Your task to perform on an android device: Show me recent news Image 0: 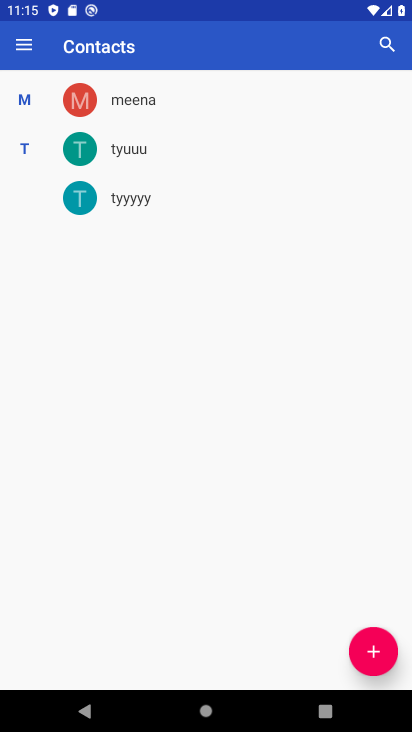
Step 0: press home button
Your task to perform on an android device: Show me recent news Image 1: 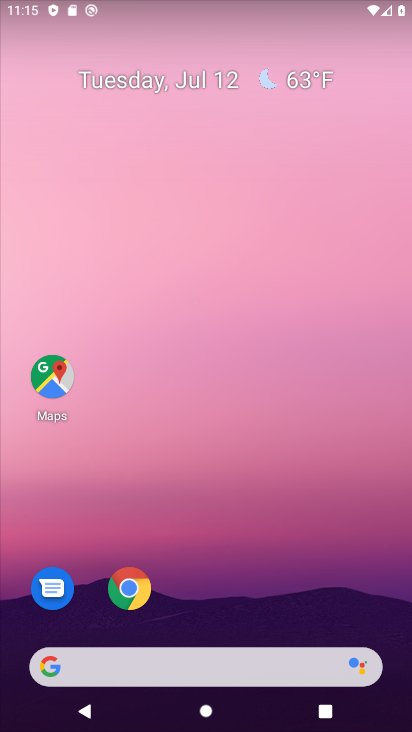
Step 1: click (93, 662)
Your task to perform on an android device: Show me recent news Image 2: 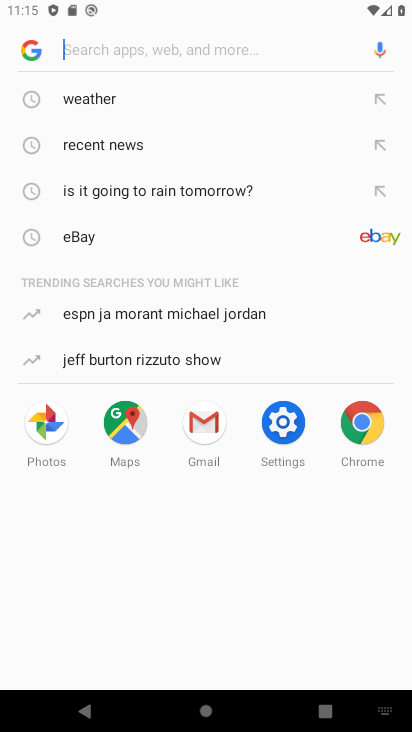
Step 2: type "Show me recent news"
Your task to perform on an android device: Show me recent news Image 3: 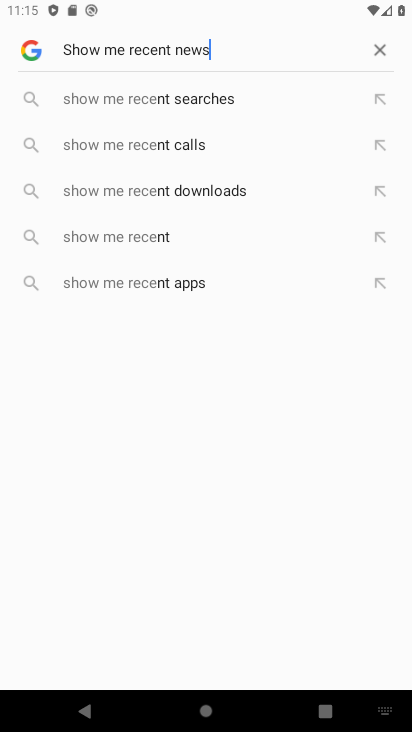
Step 3: type ""
Your task to perform on an android device: Show me recent news Image 4: 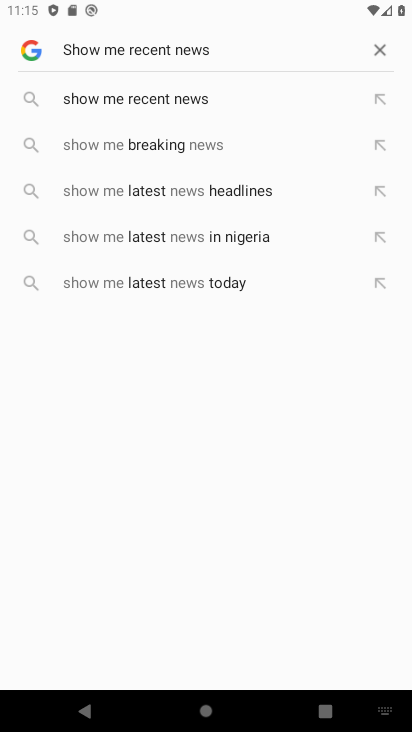
Step 4: type ""
Your task to perform on an android device: Show me recent news Image 5: 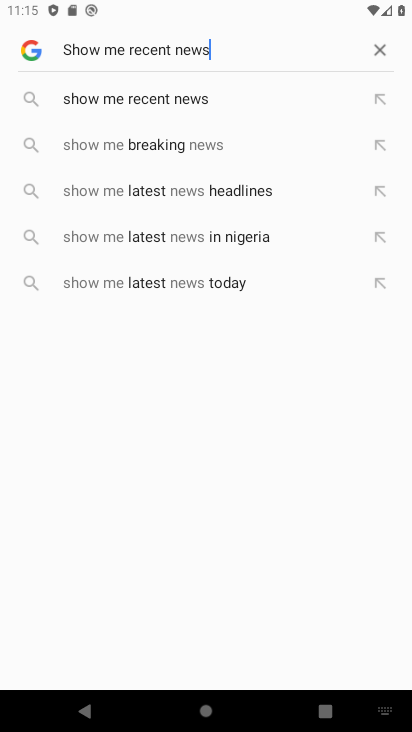
Step 5: type ""
Your task to perform on an android device: Show me recent news Image 6: 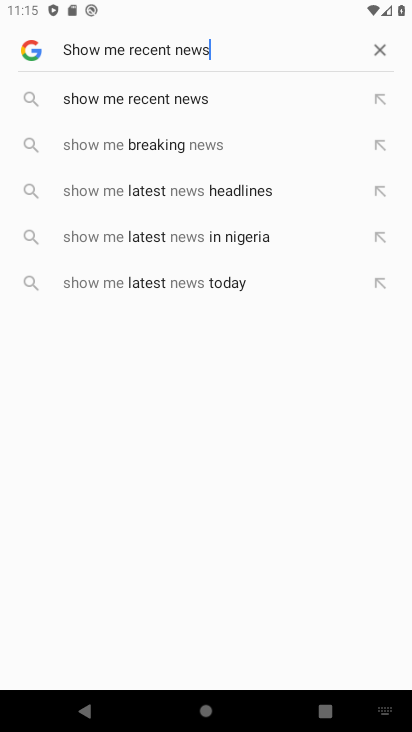
Step 6: task complete